Your task to perform on an android device: Open calendar and show me the third week of next month Image 0: 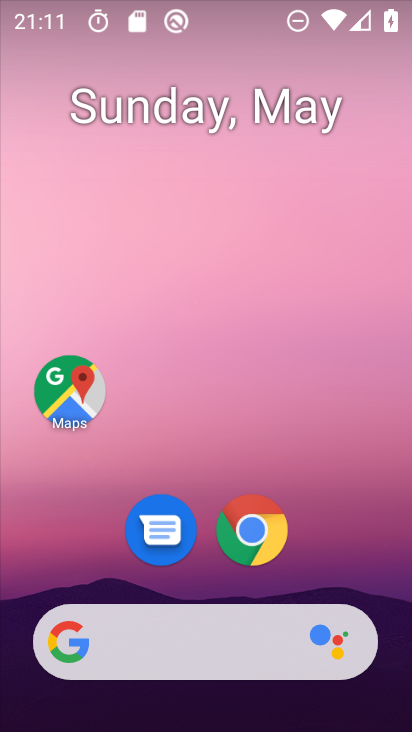
Step 0: drag from (206, 682) to (118, 10)
Your task to perform on an android device: Open calendar and show me the third week of next month Image 1: 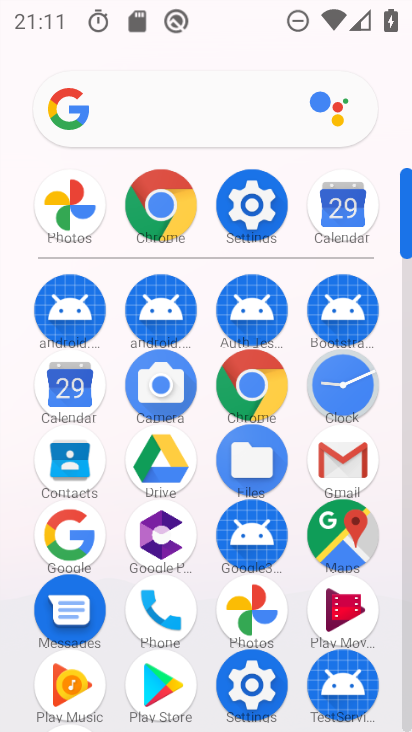
Step 1: click (57, 396)
Your task to perform on an android device: Open calendar and show me the third week of next month Image 2: 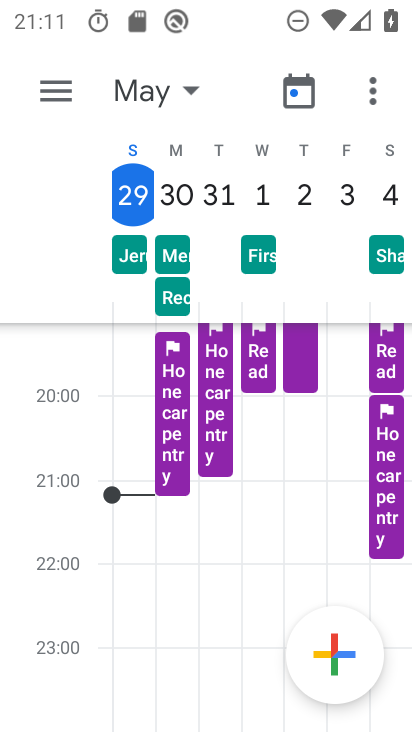
Step 2: click (70, 91)
Your task to perform on an android device: Open calendar and show me the third week of next month Image 3: 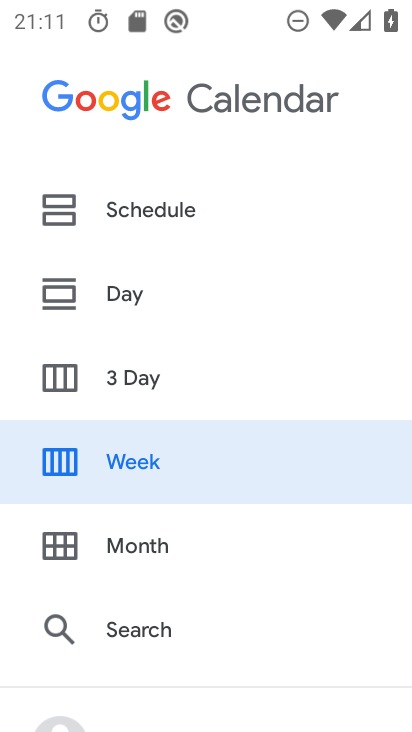
Step 3: click (125, 547)
Your task to perform on an android device: Open calendar and show me the third week of next month Image 4: 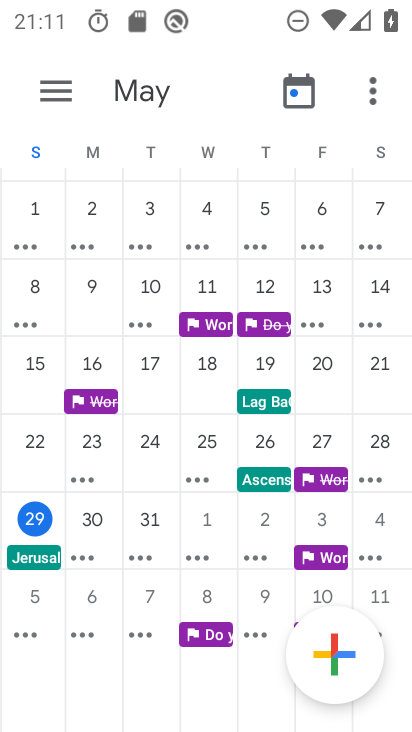
Step 4: drag from (364, 368) to (14, 365)
Your task to perform on an android device: Open calendar and show me the third week of next month Image 5: 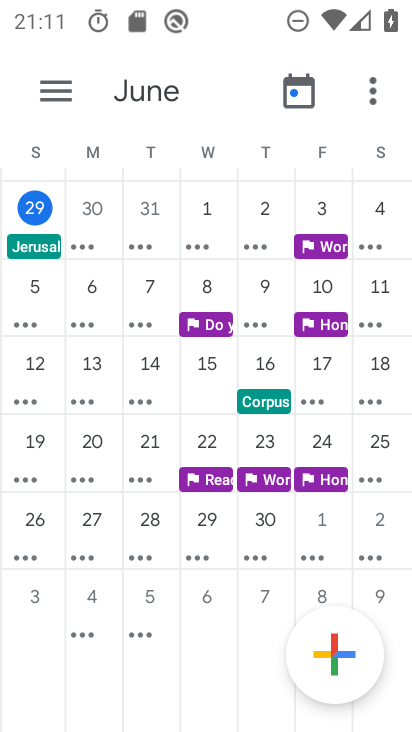
Step 5: click (80, 380)
Your task to perform on an android device: Open calendar and show me the third week of next month Image 6: 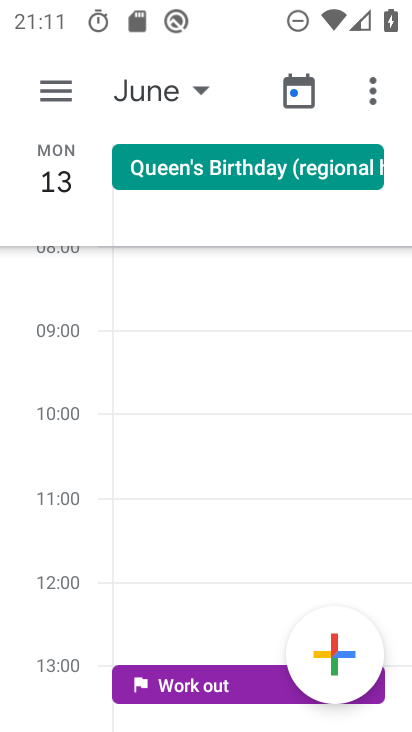
Step 6: task complete